Your task to perform on an android device: set an alarm Image 0: 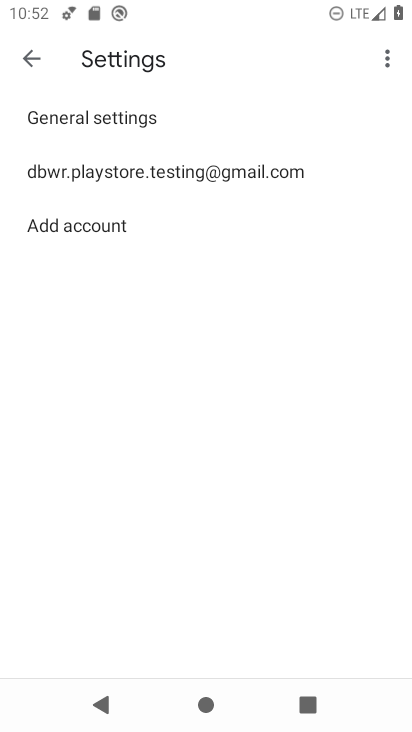
Step 0: press home button
Your task to perform on an android device: set an alarm Image 1: 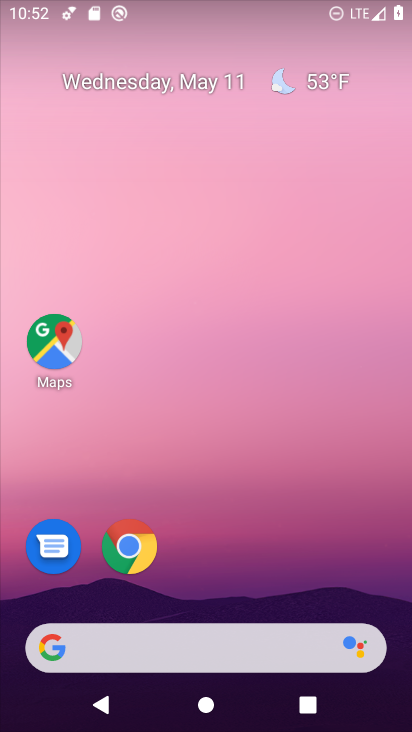
Step 1: drag from (396, 670) to (277, 38)
Your task to perform on an android device: set an alarm Image 2: 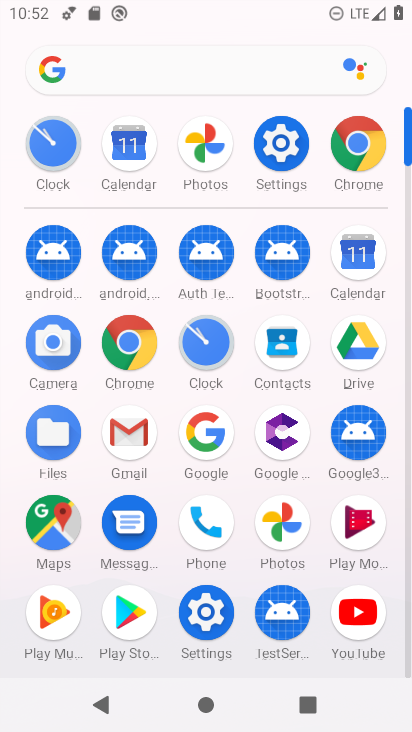
Step 2: click (66, 140)
Your task to perform on an android device: set an alarm Image 3: 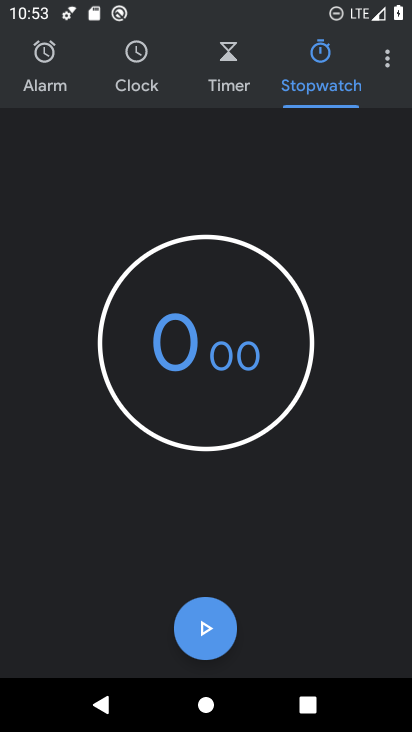
Step 3: click (52, 73)
Your task to perform on an android device: set an alarm Image 4: 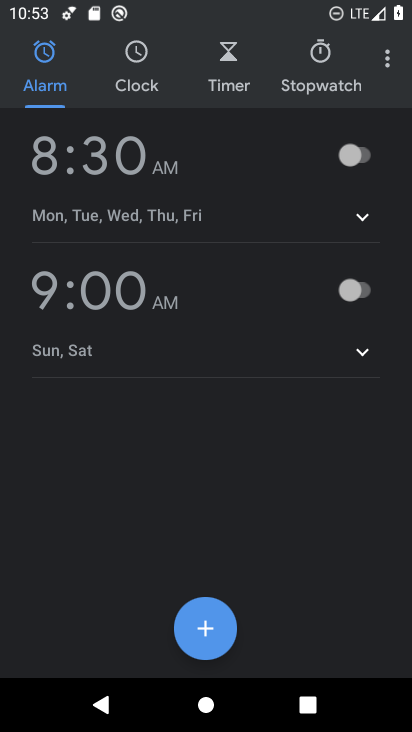
Step 4: click (333, 146)
Your task to perform on an android device: set an alarm Image 5: 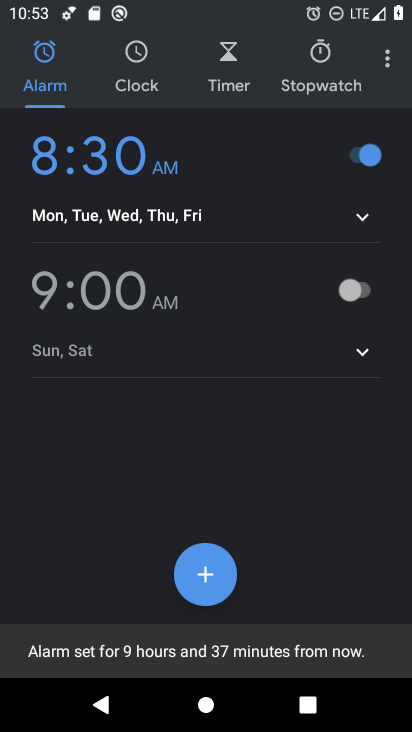
Step 5: task complete